Your task to perform on an android device: check google app version Image 0: 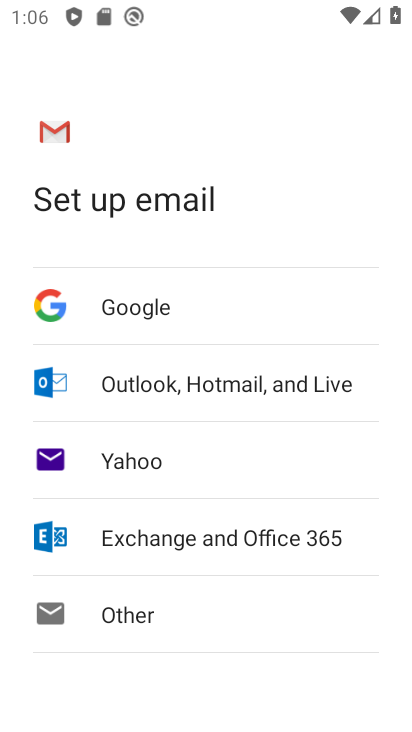
Step 0: press home button
Your task to perform on an android device: check google app version Image 1: 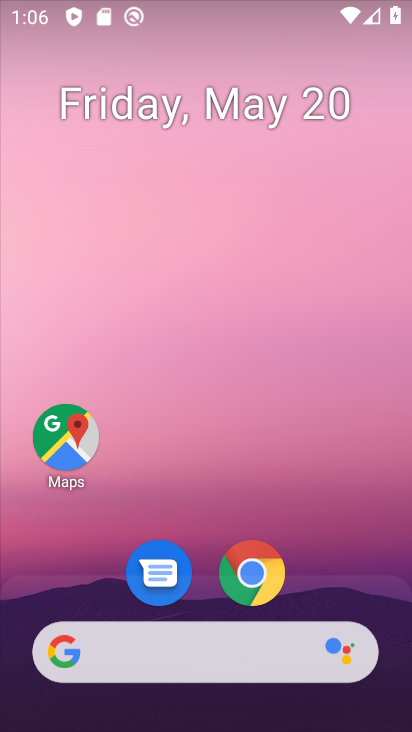
Step 1: drag from (360, 590) to (225, 54)
Your task to perform on an android device: check google app version Image 2: 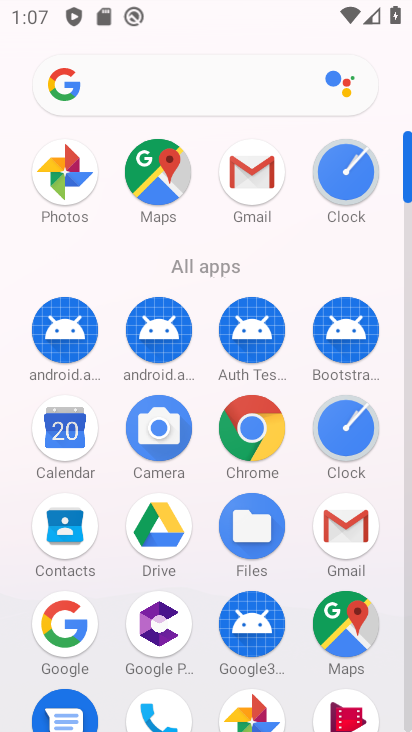
Step 2: click (74, 633)
Your task to perform on an android device: check google app version Image 3: 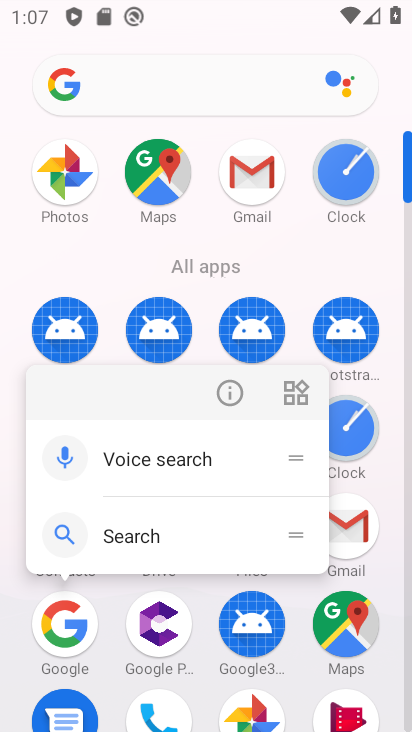
Step 3: click (238, 390)
Your task to perform on an android device: check google app version Image 4: 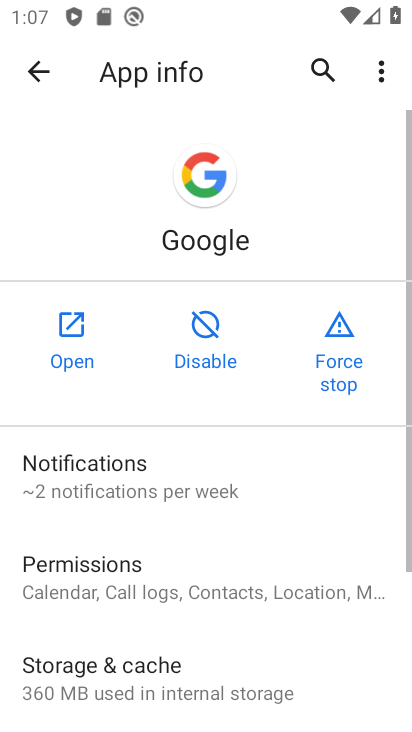
Step 4: drag from (133, 628) to (207, 0)
Your task to perform on an android device: check google app version Image 5: 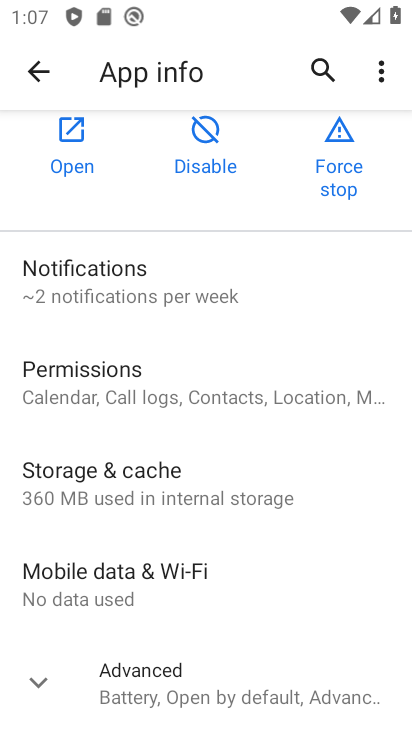
Step 5: click (42, 676)
Your task to perform on an android device: check google app version Image 6: 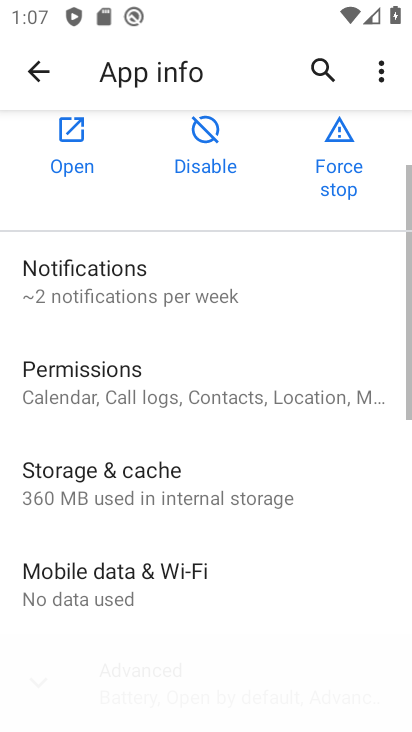
Step 6: task complete